Your task to perform on an android device: remove spam from my inbox in the gmail app Image 0: 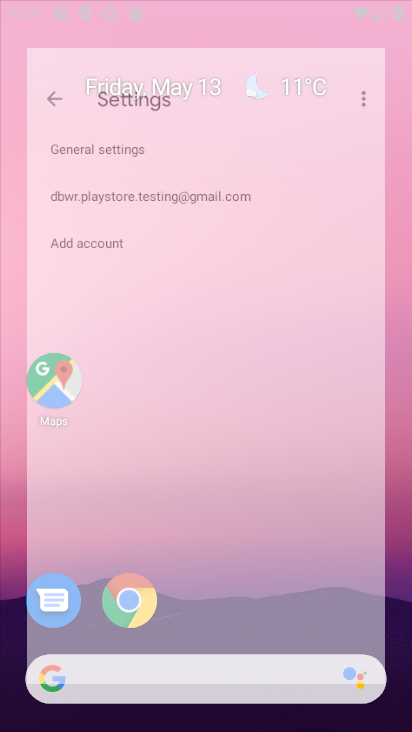
Step 0: drag from (182, 625) to (237, 151)
Your task to perform on an android device: remove spam from my inbox in the gmail app Image 1: 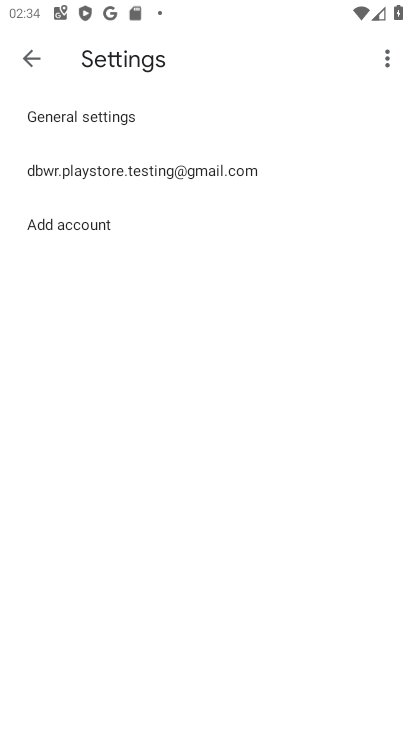
Step 1: press home button
Your task to perform on an android device: remove spam from my inbox in the gmail app Image 2: 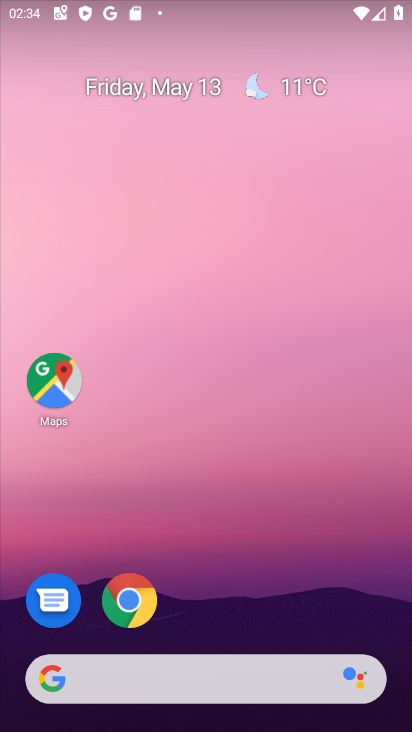
Step 2: drag from (206, 609) to (274, 215)
Your task to perform on an android device: remove spam from my inbox in the gmail app Image 3: 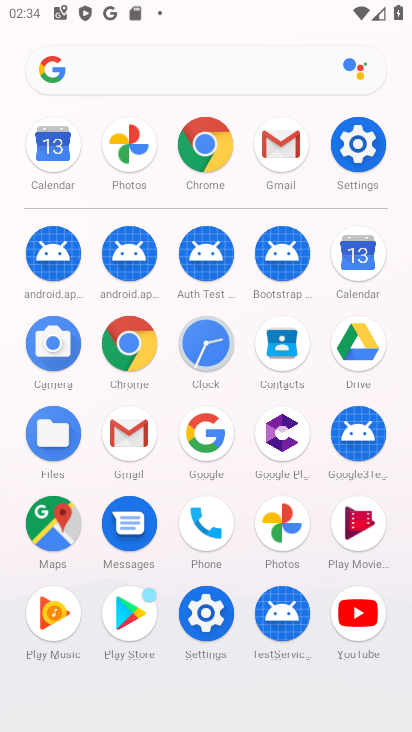
Step 3: click (110, 435)
Your task to perform on an android device: remove spam from my inbox in the gmail app Image 4: 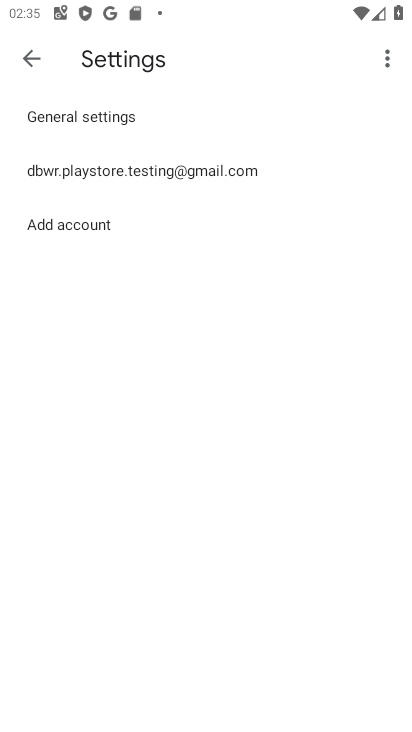
Step 4: click (27, 48)
Your task to perform on an android device: remove spam from my inbox in the gmail app Image 5: 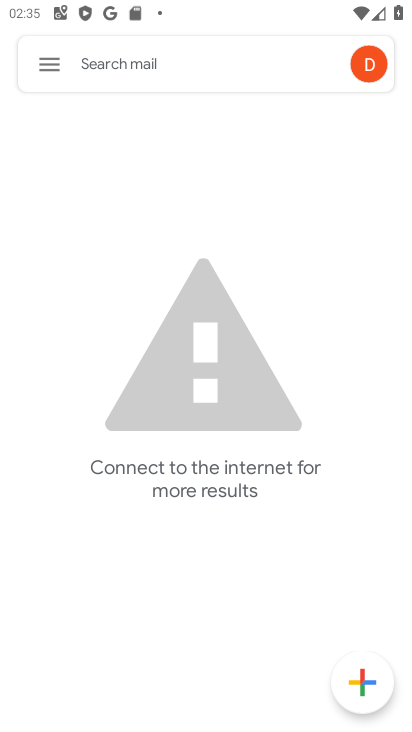
Step 5: click (43, 59)
Your task to perform on an android device: remove spam from my inbox in the gmail app Image 6: 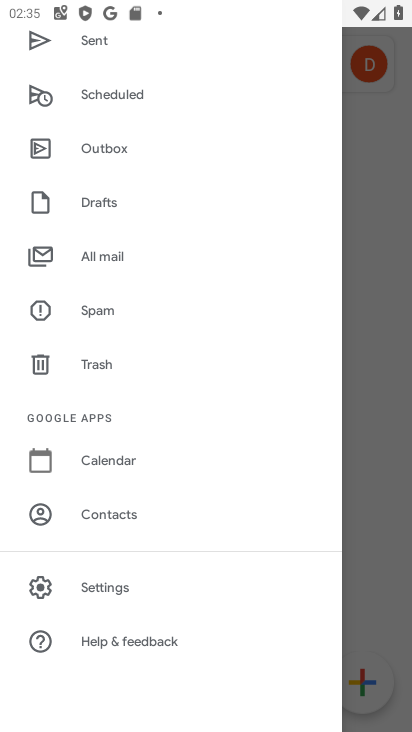
Step 6: click (107, 313)
Your task to perform on an android device: remove spam from my inbox in the gmail app Image 7: 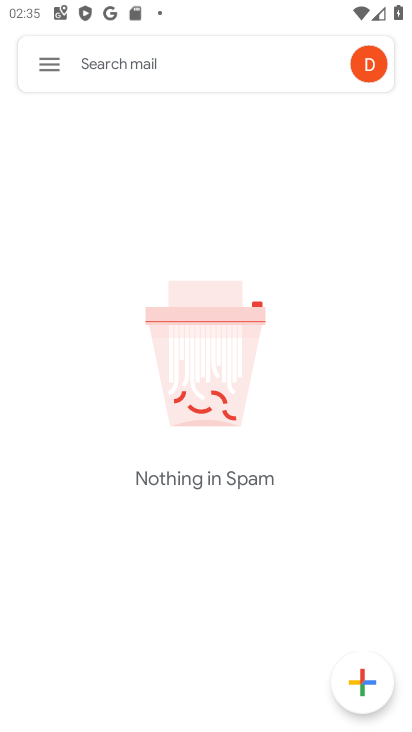
Step 7: drag from (241, 553) to (311, 258)
Your task to perform on an android device: remove spam from my inbox in the gmail app Image 8: 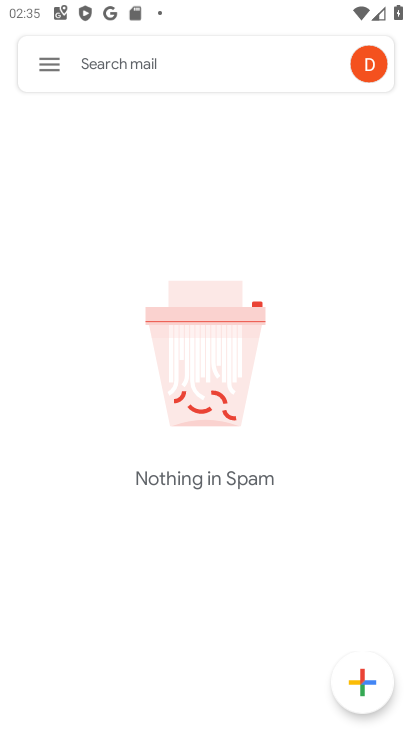
Step 8: click (52, 52)
Your task to perform on an android device: remove spam from my inbox in the gmail app Image 9: 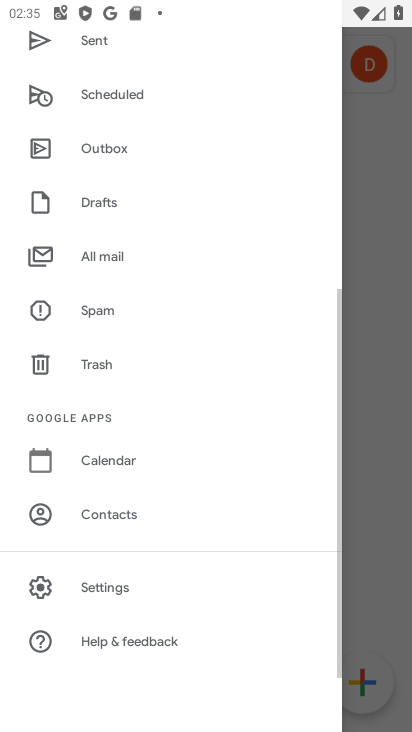
Step 9: click (98, 312)
Your task to perform on an android device: remove spam from my inbox in the gmail app Image 10: 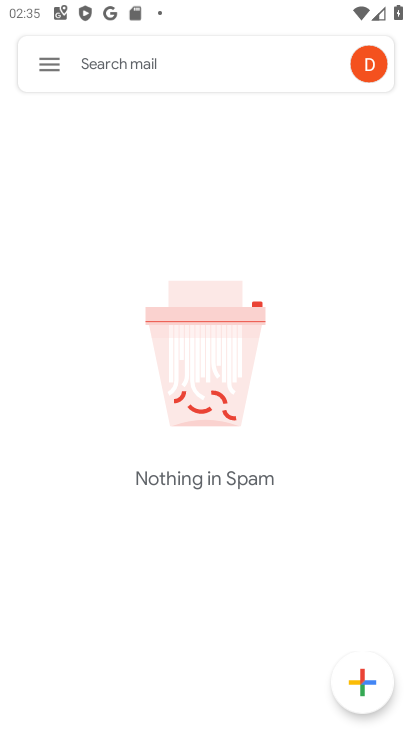
Step 10: task complete